Your task to perform on an android device: Do I have any events this weekend? Image 0: 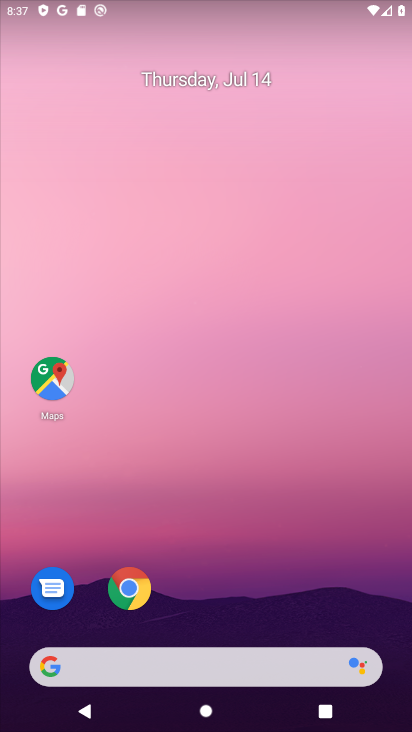
Step 0: drag from (206, 403) to (188, 276)
Your task to perform on an android device: Do I have any events this weekend? Image 1: 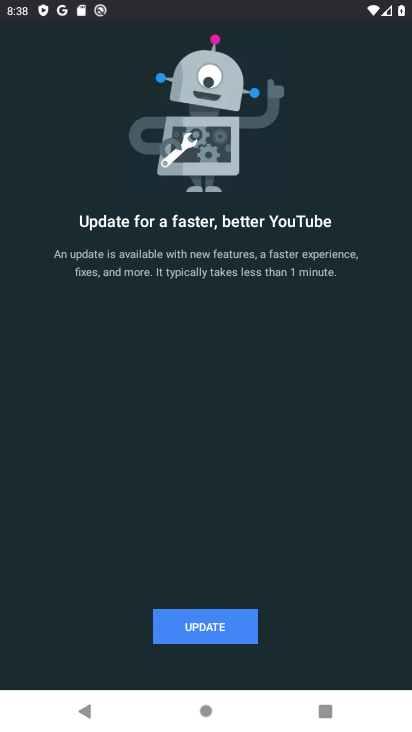
Step 1: press back button
Your task to perform on an android device: Do I have any events this weekend? Image 2: 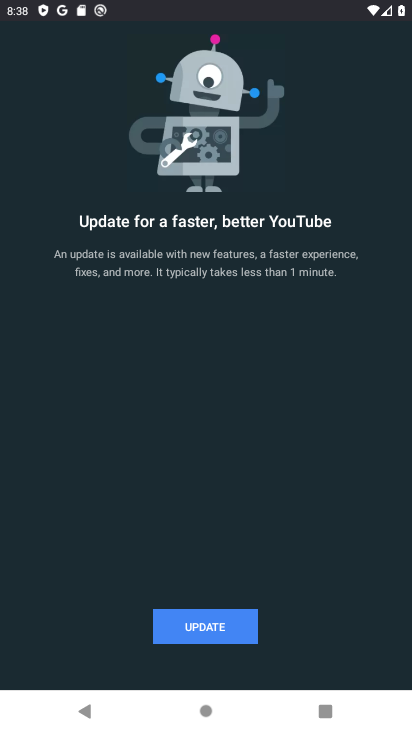
Step 2: press back button
Your task to perform on an android device: Do I have any events this weekend? Image 3: 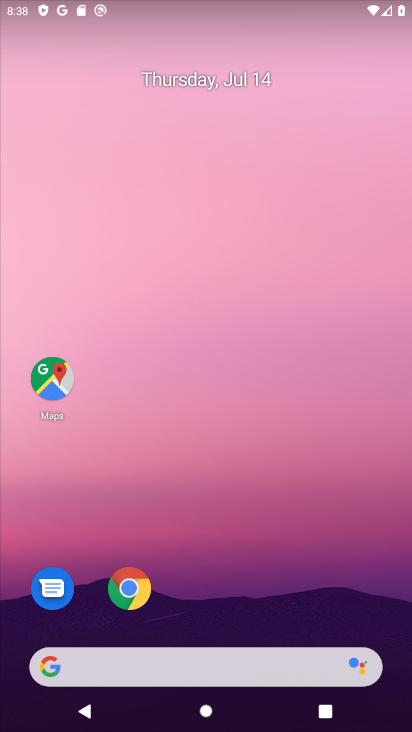
Step 3: drag from (216, 642) to (139, 140)
Your task to perform on an android device: Do I have any events this weekend? Image 4: 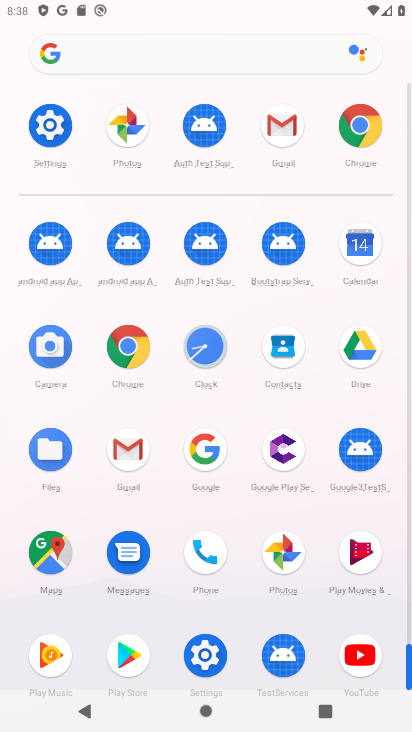
Step 4: click (361, 236)
Your task to perform on an android device: Do I have any events this weekend? Image 5: 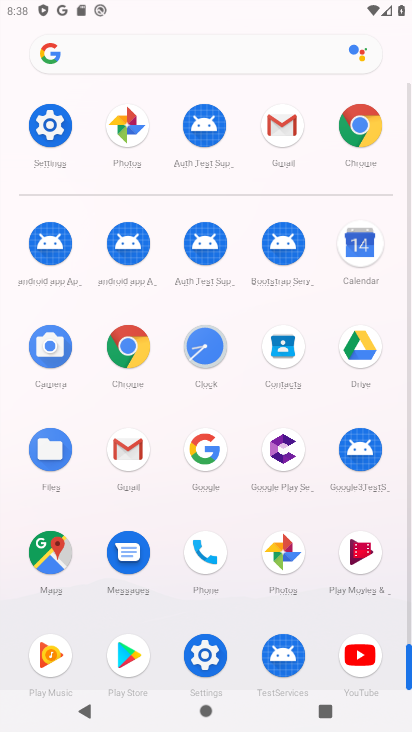
Step 5: click (361, 237)
Your task to perform on an android device: Do I have any events this weekend? Image 6: 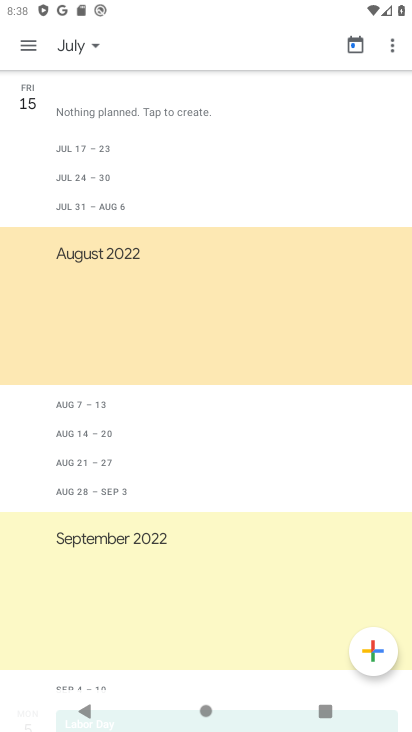
Step 6: click (99, 42)
Your task to perform on an android device: Do I have any events this weekend? Image 7: 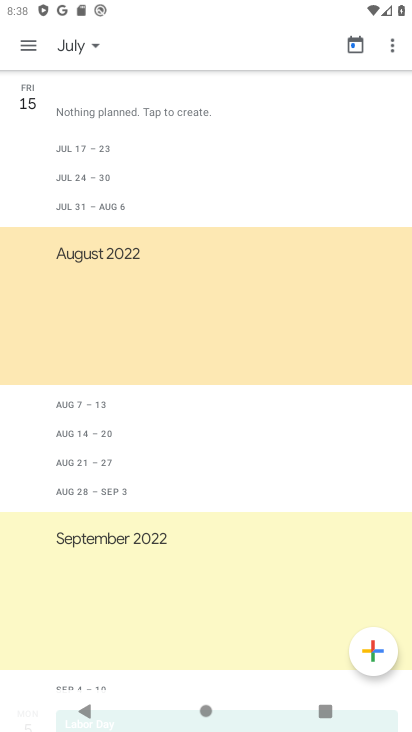
Step 7: click (98, 43)
Your task to perform on an android device: Do I have any events this weekend? Image 8: 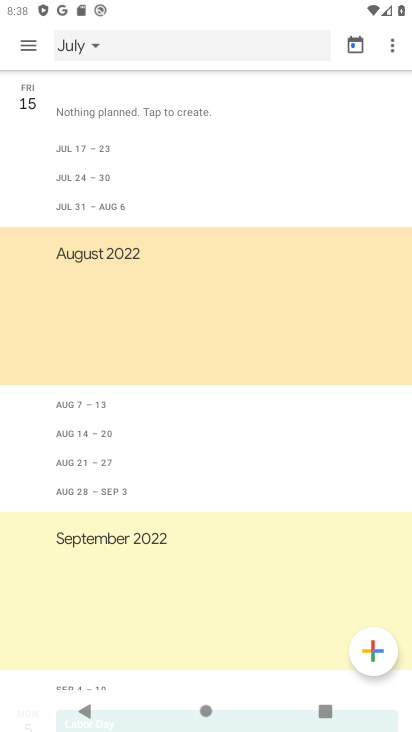
Step 8: click (98, 43)
Your task to perform on an android device: Do I have any events this weekend? Image 9: 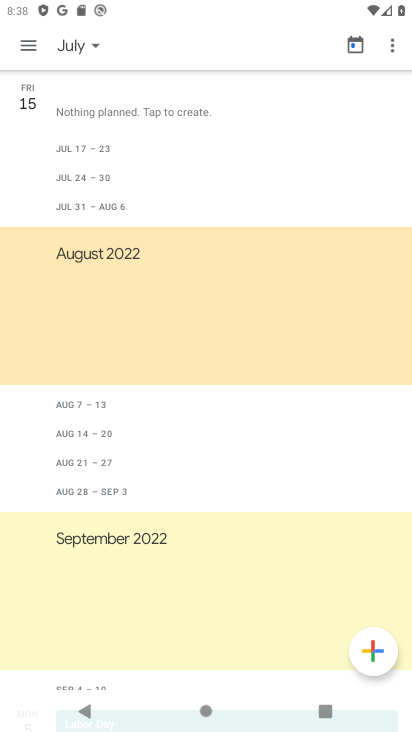
Step 9: click (97, 44)
Your task to perform on an android device: Do I have any events this weekend? Image 10: 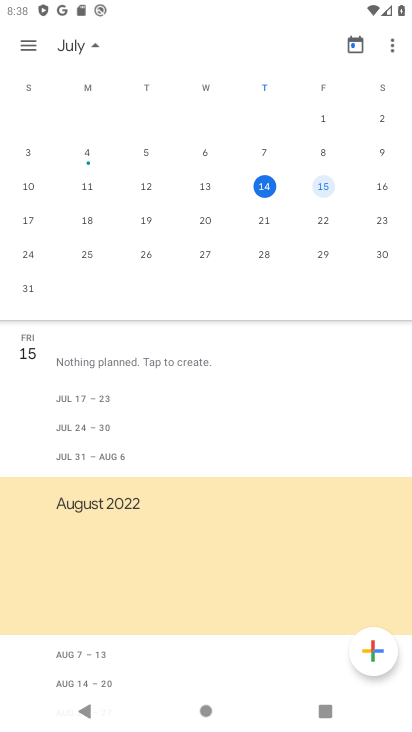
Step 10: click (374, 188)
Your task to perform on an android device: Do I have any events this weekend? Image 11: 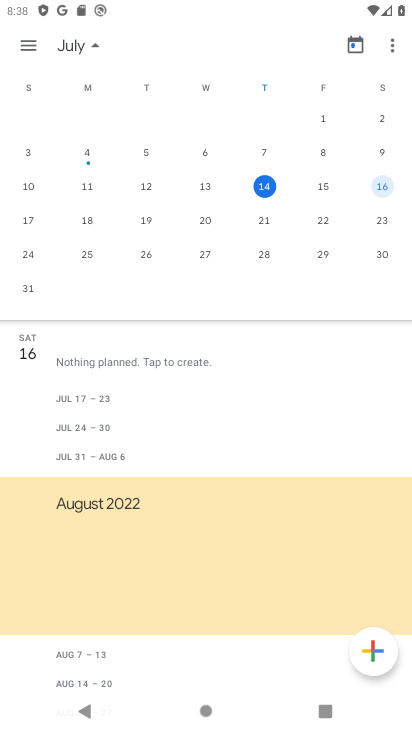
Step 11: click (375, 187)
Your task to perform on an android device: Do I have any events this weekend? Image 12: 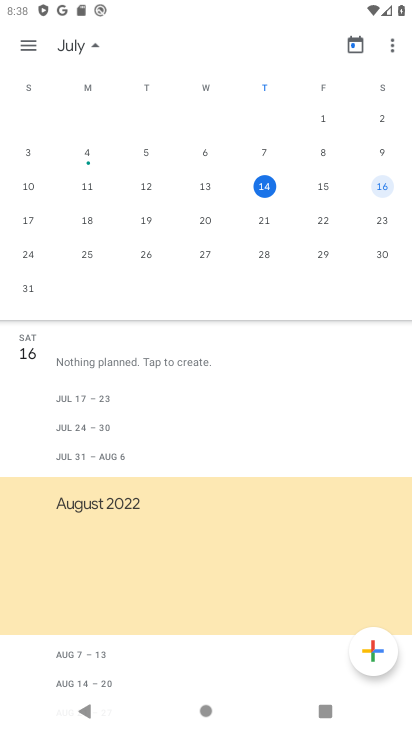
Step 12: click (375, 187)
Your task to perform on an android device: Do I have any events this weekend? Image 13: 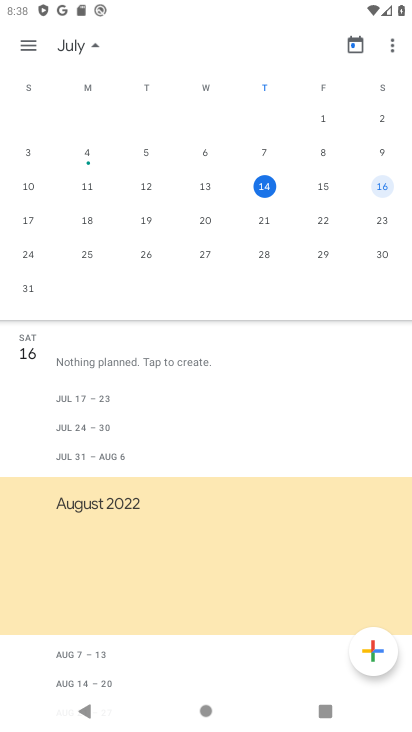
Step 13: click (376, 186)
Your task to perform on an android device: Do I have any events this weekend? Image 14: 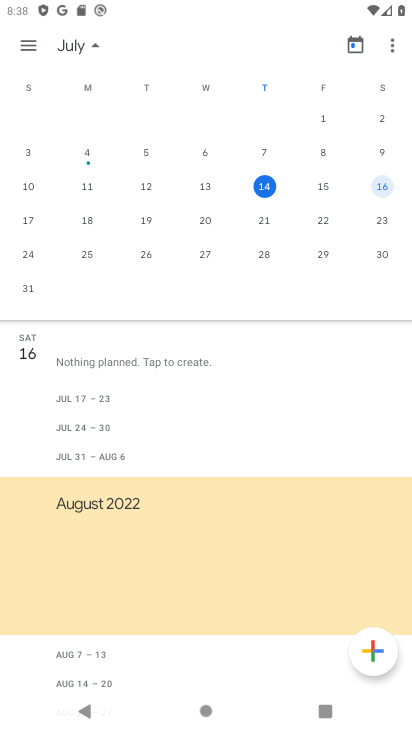
Step 14: task complete